Your task to perform on an android device: Go to calendar. Show me events next week Image 0: 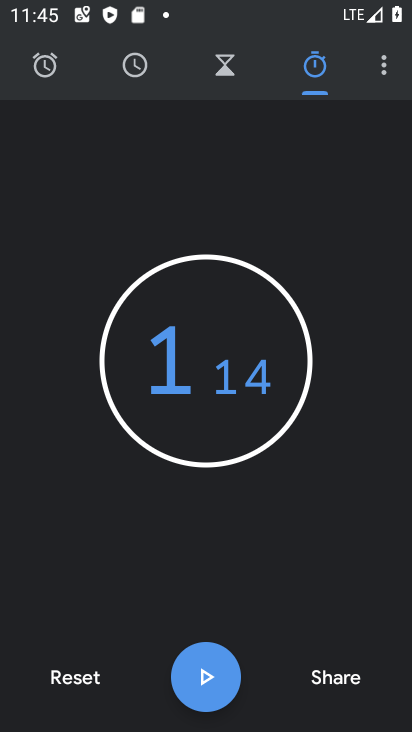
Step 0: press home button
Your task to perform on an android device: Go to calendar. Show me events next week Image 1: 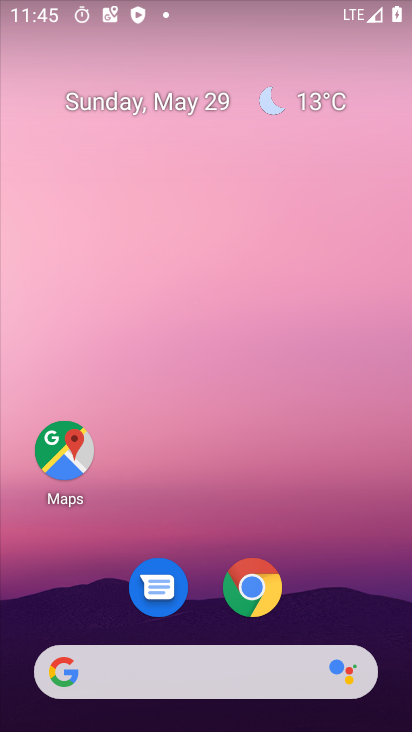
Step 1: drag from (332, 468) to (344, 66)
Your task to perform on an android device: Go to calendar. Show me events next week Image 2: 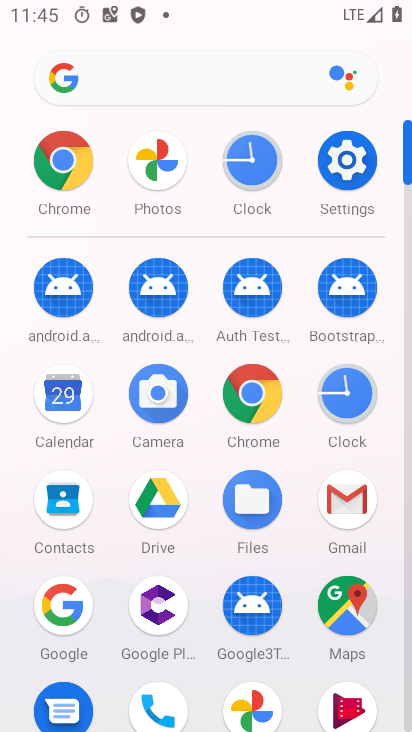
Step 2: click (60, 395)
Your task to perform on an android device: Go to calendar. Show me events next week Image 3: 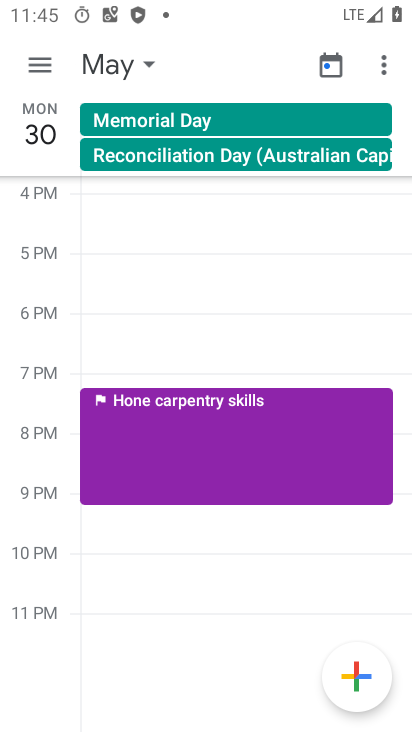
Step 3: click (128, 72)
Your task to perform on an android device: Go to calendar. Show me events next week Image 4: 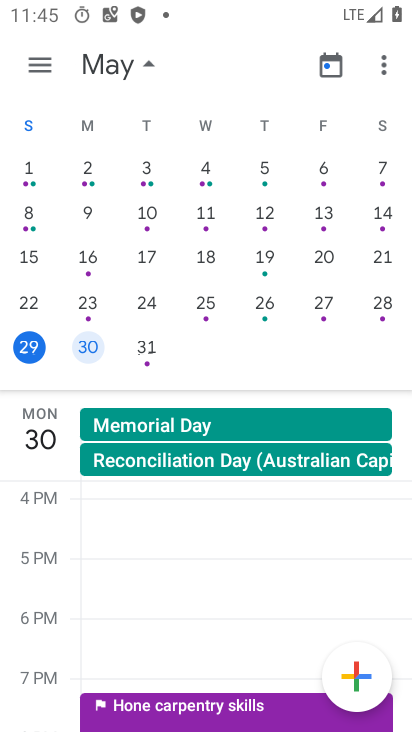
Step 4: drag from (306, 286) to (25, 260)
Your task to perform on an android device: Go to calendar. Show me events next week Image 5: 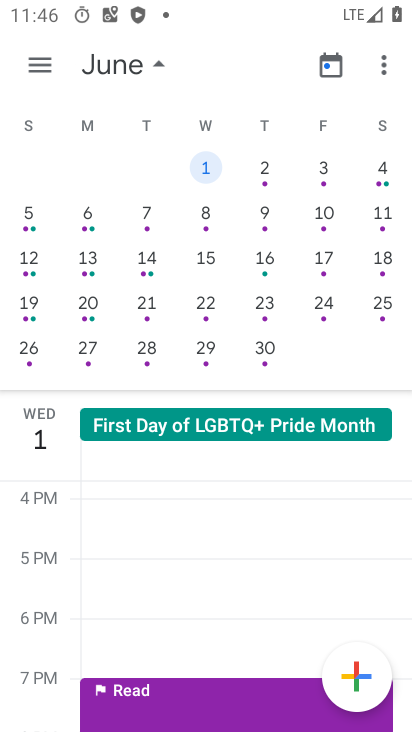
Step 5: click (44, 62)
Your task to perform on an android device: Go to calendar. Show me events next week Image 6: 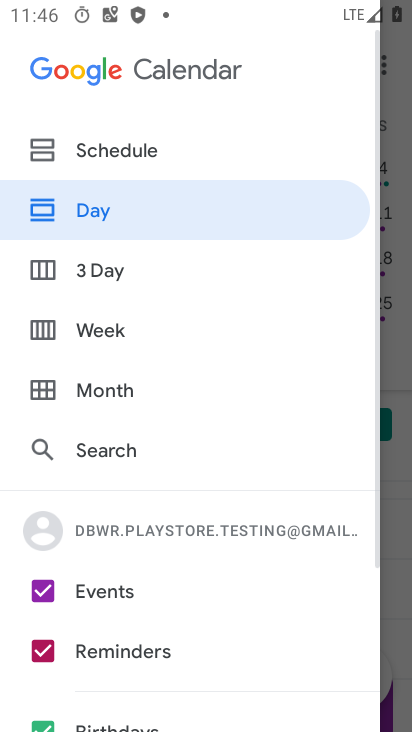
Step 6: click (97, 316)
Your task to perform on an android device: Go to calendar. Show me events next week Image 7: 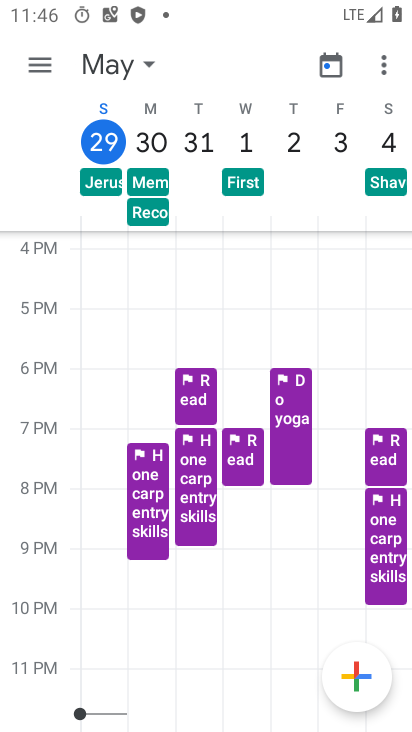
Step 7: task complete